Your task to perform on an android device: Go to display settings Image 0: 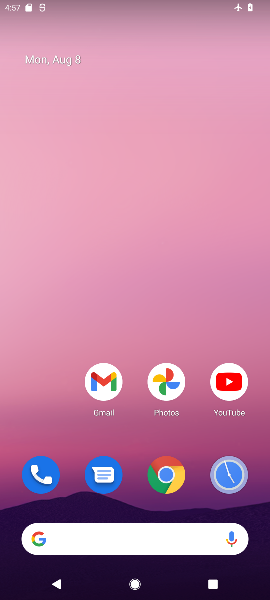
Step 0: press home button
Your task to perform on an android device: Go to display settings Image 1: 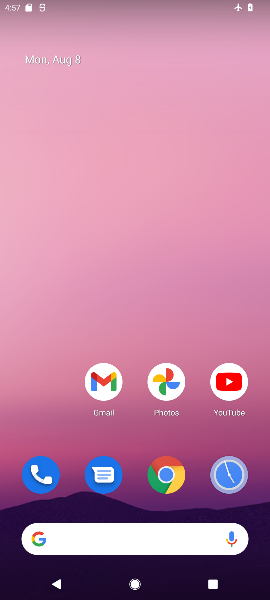
Step 1: drag from (64, 434) to (52, 211)
Your task to perform on an android device: Go to display settings Image 2: 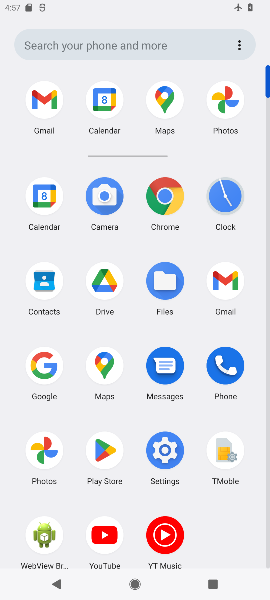
Step 2: click (170, 453)
Your task to perform on an android device: Go to display settings Image 3: 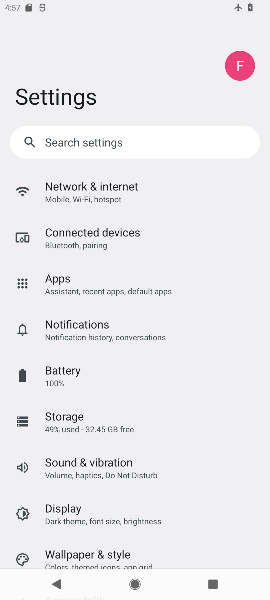
Step 3: drag from (205, 423) to (208, 372)
Your task to perform on an android device: Go to display settings Image 4: 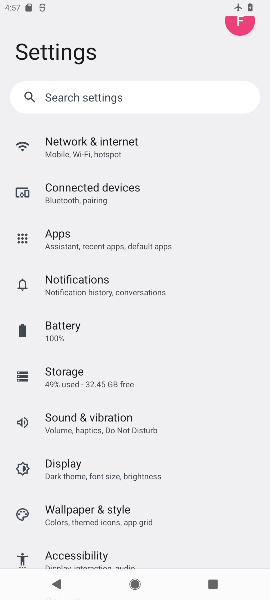
Step 4: drag from (222, 448) to (216, 359)
Your task to perform on an android device: Go to display settings Image 5: 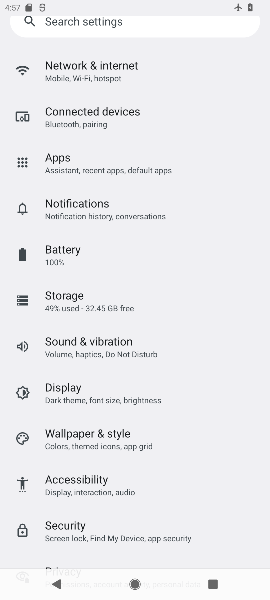
Step 5: drag from (215, 402) to (215, 293)
Your task to perform on an android device: Go to display settings Image 6: 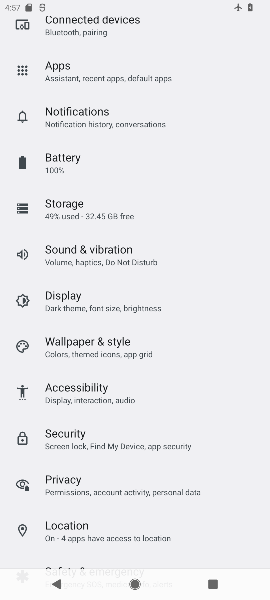
Step 6: drag from (207, 360) to (207, 264)
Your task to perform on an android device: Go to display settings Image 7: 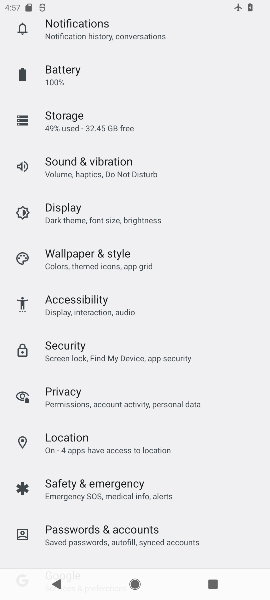
Step 7: drag from (212, 311) to (223, 229)
Your task to perform on an android device: Go to display settings Image 8: 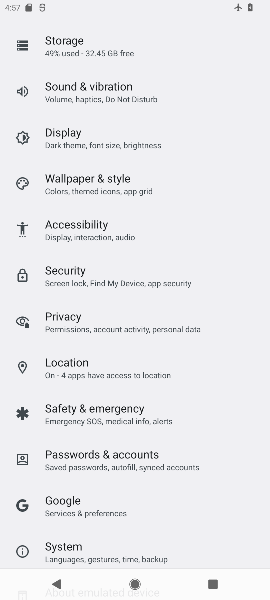
Step 8: click (169, 137)
Your task to perform on an android device: Go to display settings Image 9: 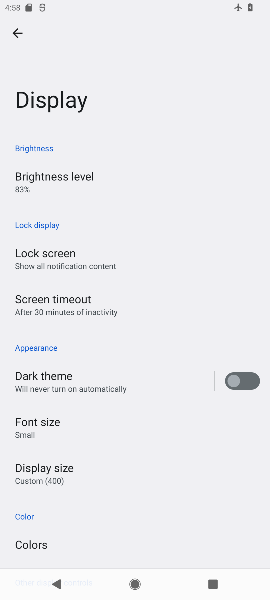
Step 9: task complete